Your task to perform on an android device: Go to sound settings Image 0: 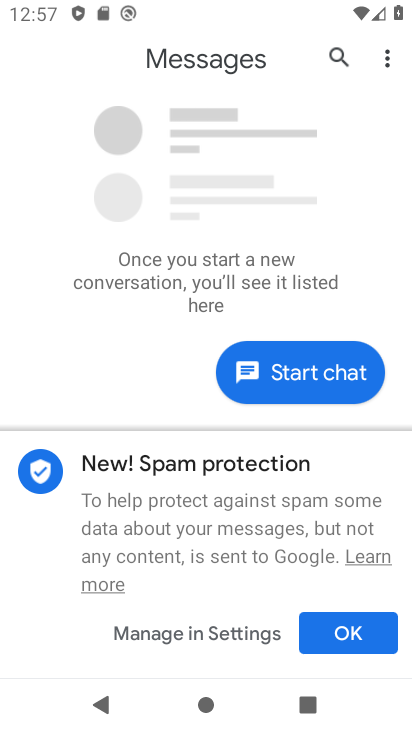
Step 0: press home button
Your task to perform on an android device: Go to sound settings Image 1: 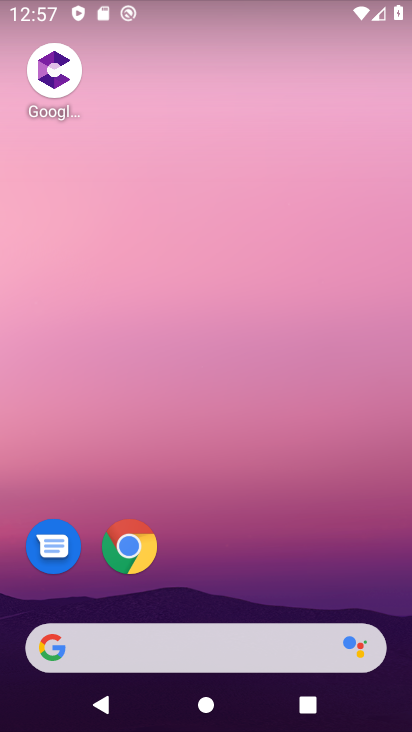
Step 1: drag from (198, 622) to (82, 19)
Your task to perform on an android device: Go to sound settings Image 2: 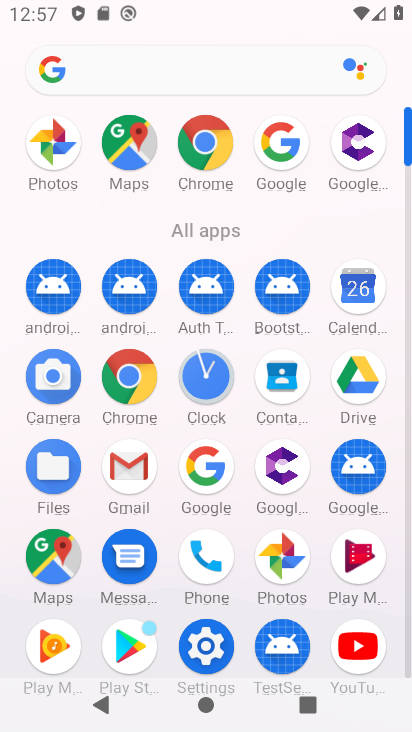
Step 2: click (196, 646)
Your task to perform on an android device: Go to sound settings Image 3: 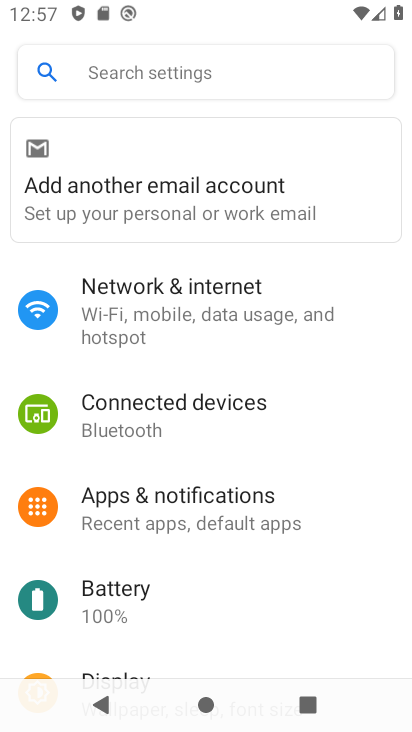
Step 3: drag from (192, 552) to (252, 121)
Your task to perform on an android device: Go to sound settings Image 4: 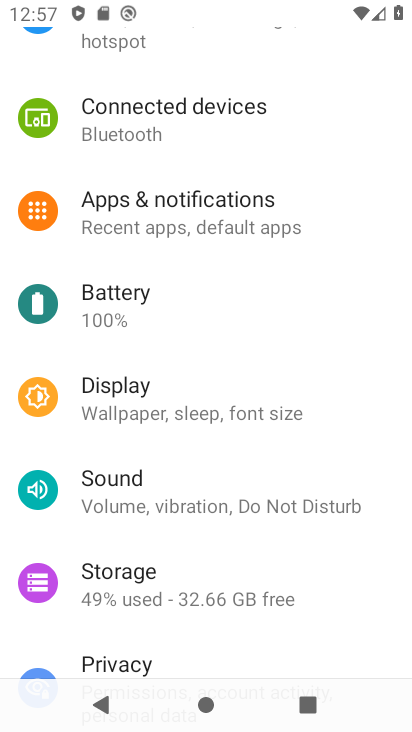
Step 4: click (144, 498)
Your task to perform on an android device: Go to sound settings Image 5: 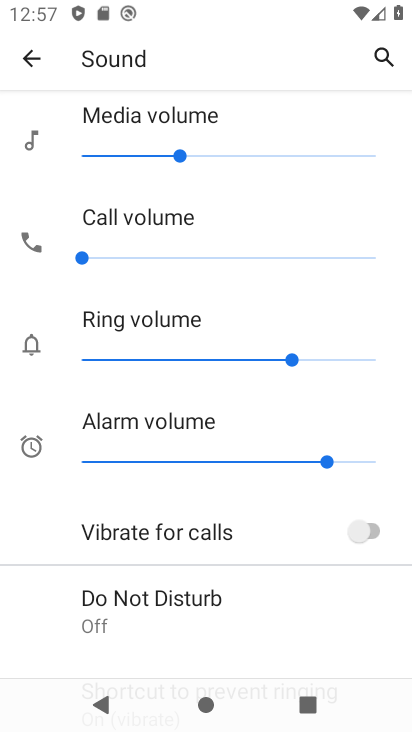
Step 5: task complete